Your task to perform on an android device: turn on data saver in the chrome app Image 0: 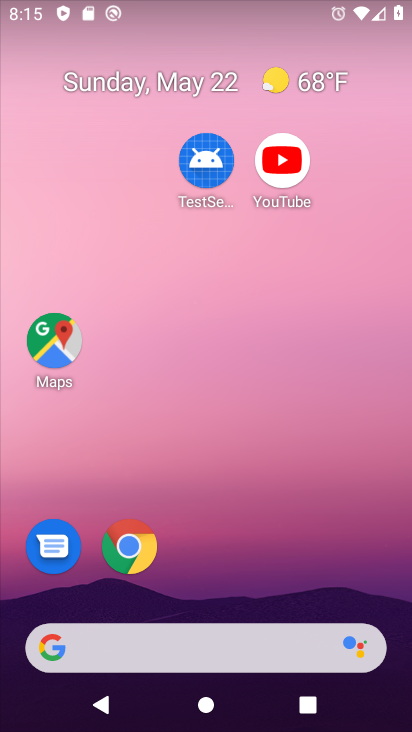
Step 0: click (29, 61)
Your task to perform on an android device: turn on data saver in the chrome app Image 1: 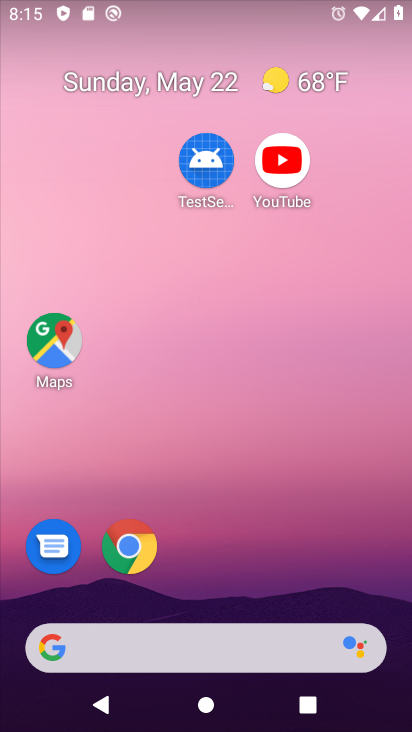
Step 1: click (26, 45)
Your task to perform on an android device: turn on data saver in the chrome app Image 2: 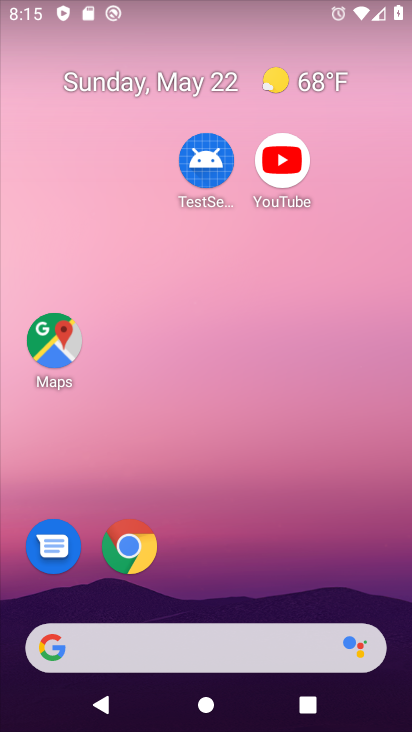
Step 2: click (54, 19)
Your task to perform on an android device: turn on data saver in the chrome app Image 3: 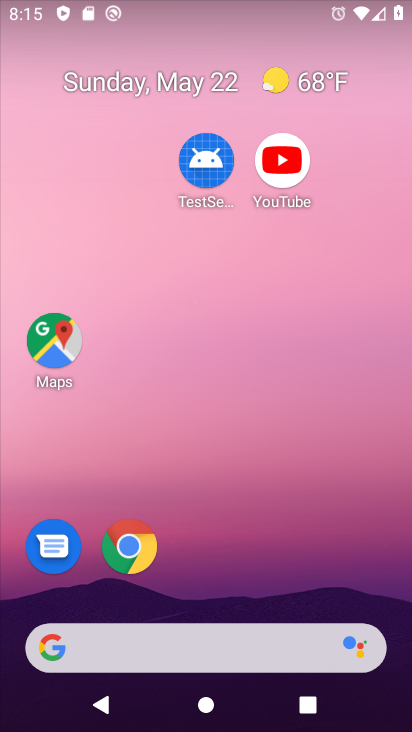
Step 3: drag from (211, 635) to (91, 57)
Your task to perform on an android device: turn on data saver in the chrome app Image 4: 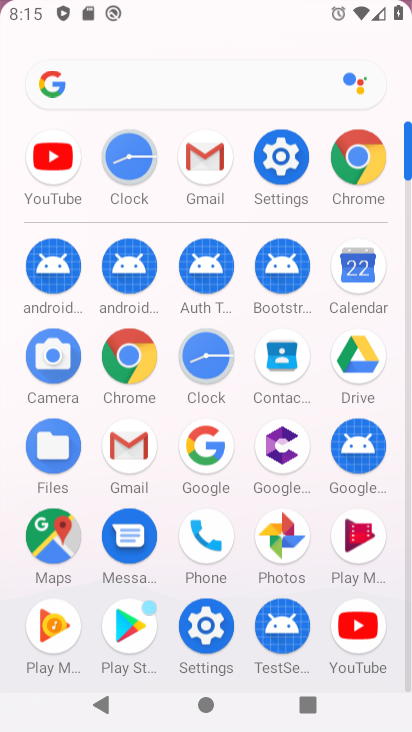
Step 4: drag from (239, 561) to (108, 65)
Your task to perform on an android device: turn on data saver in the chrome app Image 5: 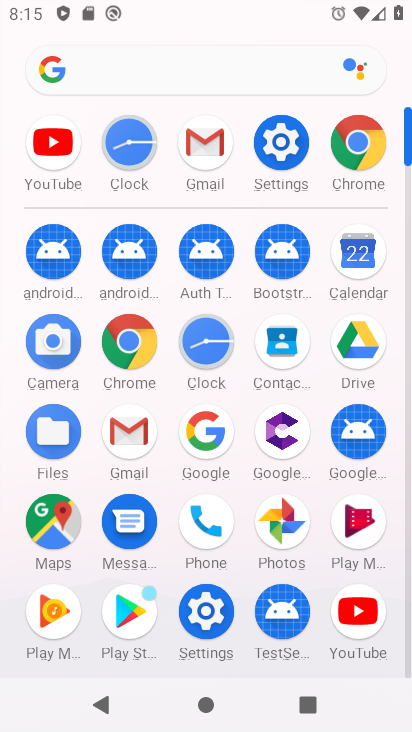
Step 5: click (358, 135)
Your task to perform on an android device: turn on data saver in the chrome app Image 6: 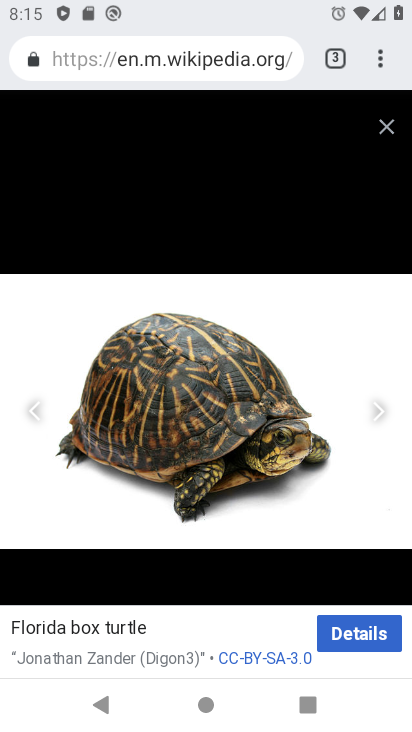
Step 6: drag from (382, 65) to (178, 580)
Your task to perform on an android device: turn on data saver in the chrome app Image 7: 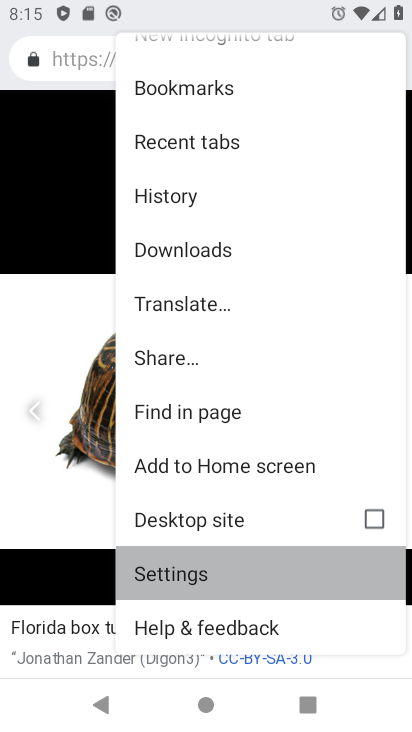
Step 7: click (177, 579)
Your task to perform on an android device: turn on data saver in the chrome app Image 8: 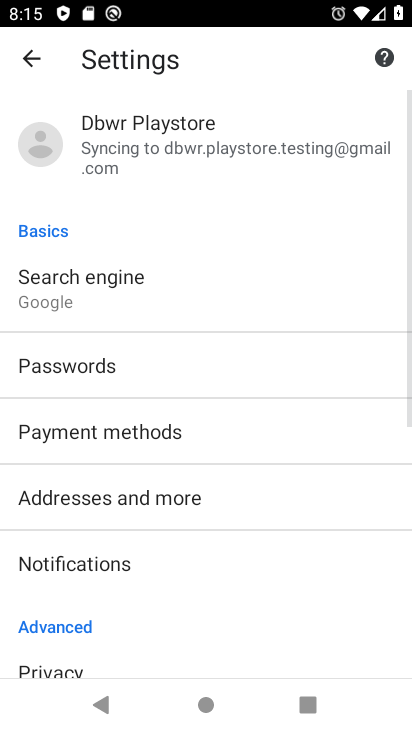
Step 8: drag from (168, 488) to (155, 118)
Your task to perform on an android device: turn on data saver in the chrome app Image 9: 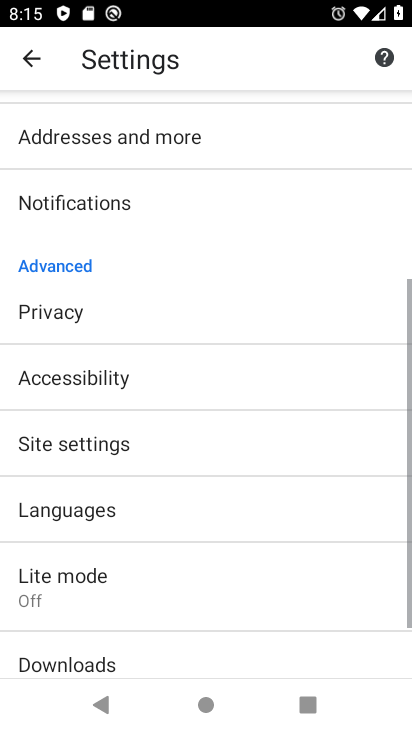
Step 9: drag from (186, 535) to (117, 192)
Your task to perform on an android device: turn on data saver in the chrome app Image 10: 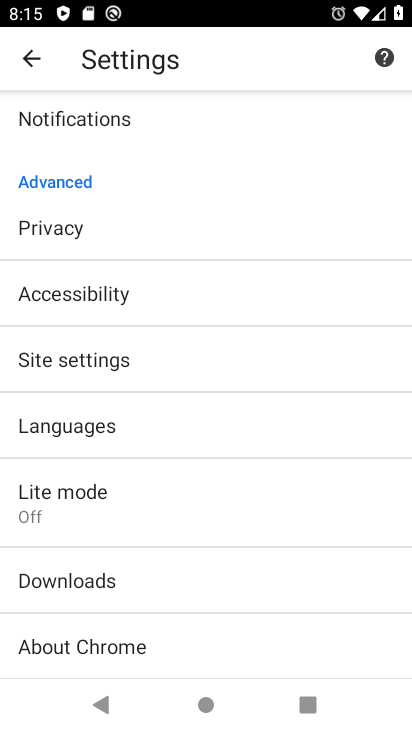
Step 10: click (56, 494)
Your task to perform on an android device: turn on data saver in the chrome app Image 11: 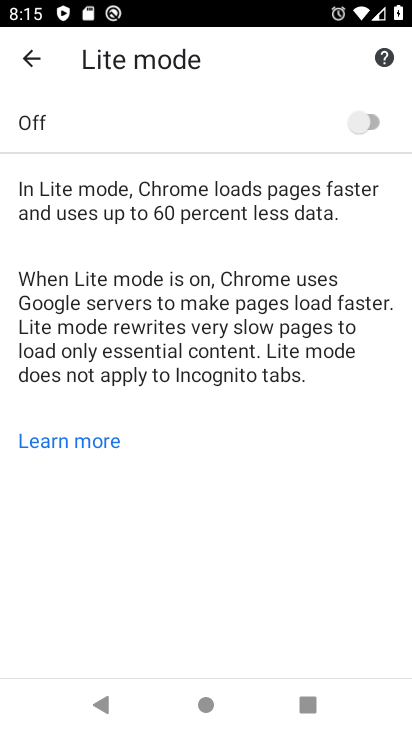
Step 11: click (358, 126)
Your task to perform on an android device: turn on data saver in the chrome app Image 12: 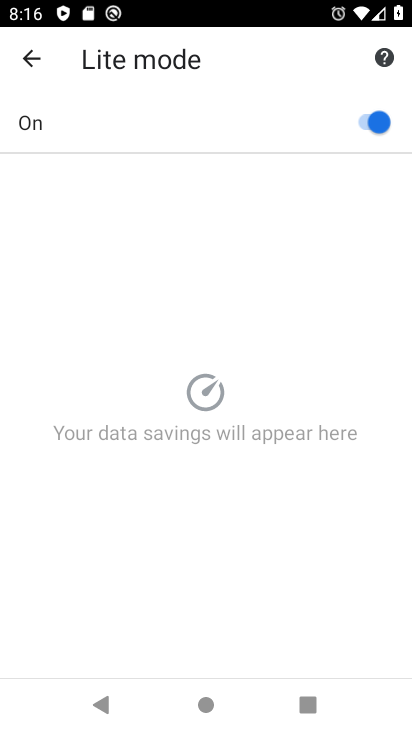
Step 12: task complete